Your task to perform on an android device: Do I have any events today? Image 0: 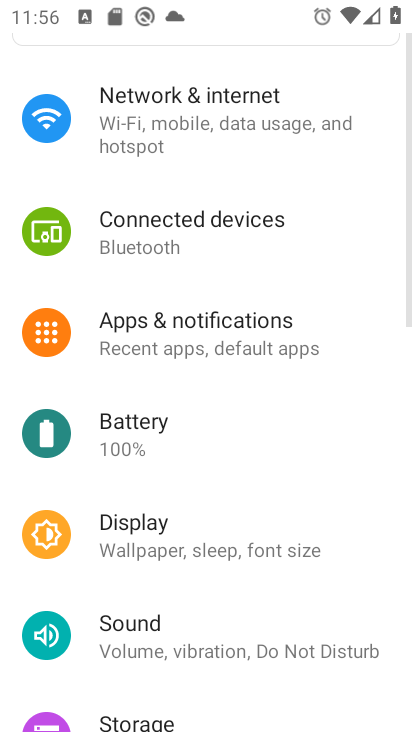
Step 0: press home button
Your task to perform on an android device: Do I have any events today? Image 1: 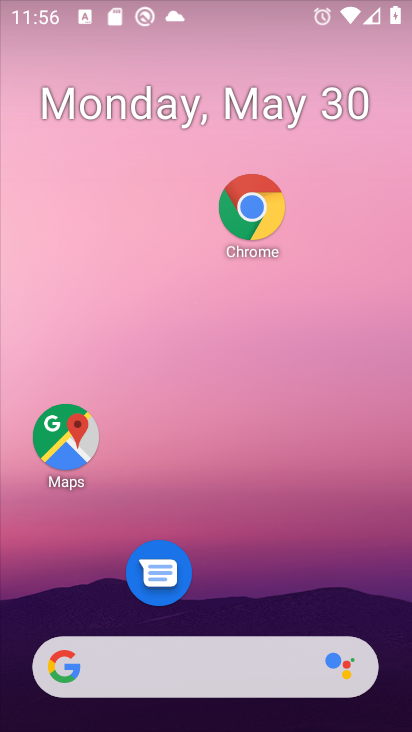
Step 1: drag from (281, 636) to (408, 180)
Your task to perform on an android device: Do I have any events today? Image 2: 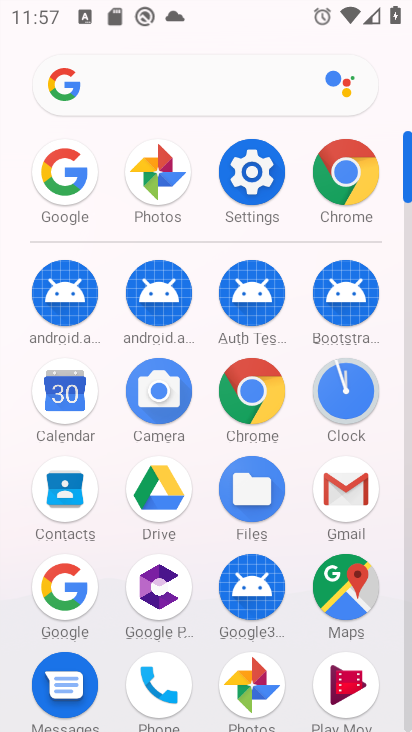
Step 2: click (70, 405)
Your task to perform on an android device: Do I have any events today? Image 3: 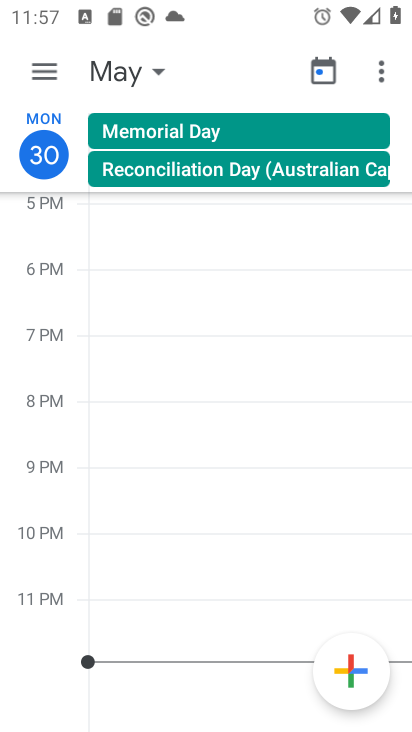
Step 3: click (152, 70)
Your task to perform on an android device: Do I have any events today? Image 4: 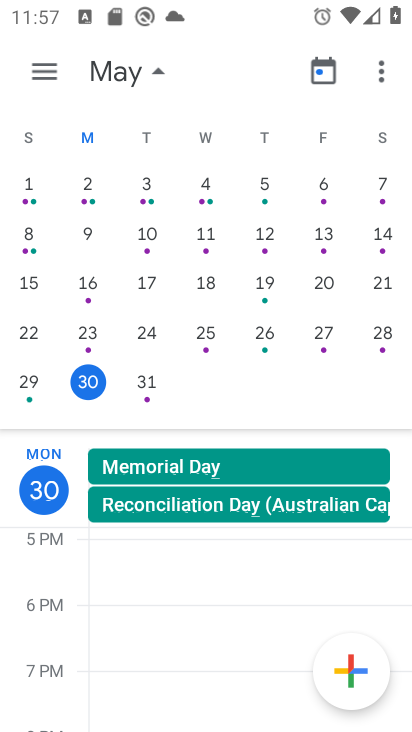
Step 4: task complete